Your task to perform on an android device: Search for pizza restaurants on Maps Image 0: 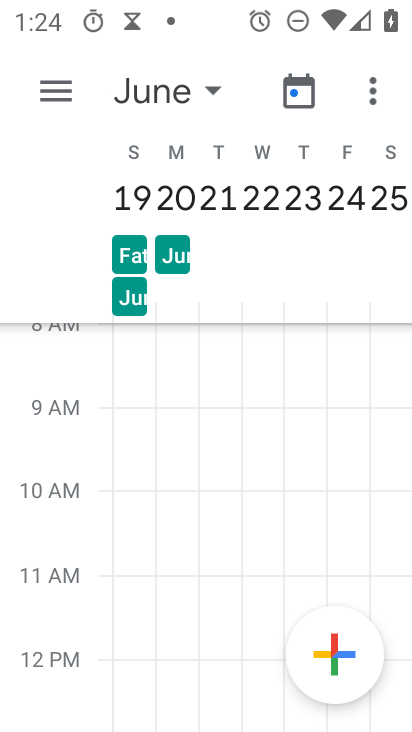
Step 0: press home button
Your task to perform on an android device: Search for pizza restaurants on Maps Image 1: 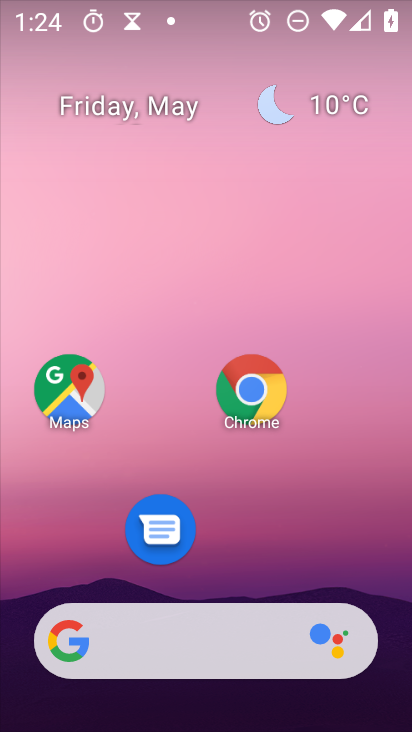
Step 1: click (61, 400)
Your task to perform on an android device: Search for pizza restaurants on Maps Image 2: 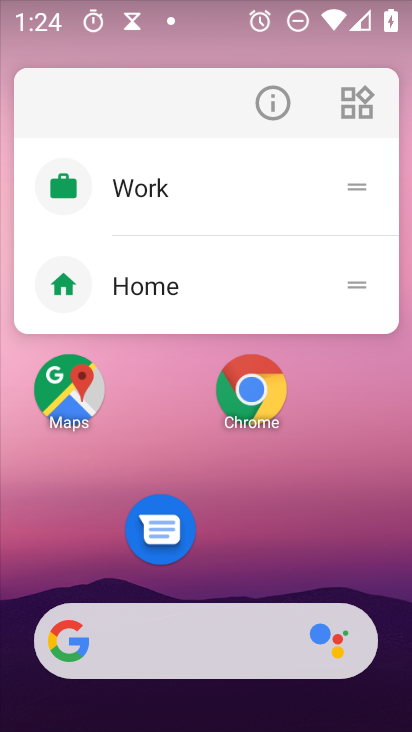
Step 2: click (68, 407)
Your task to perform on an android device: Search for pizza restaurants on Maps Image 3: 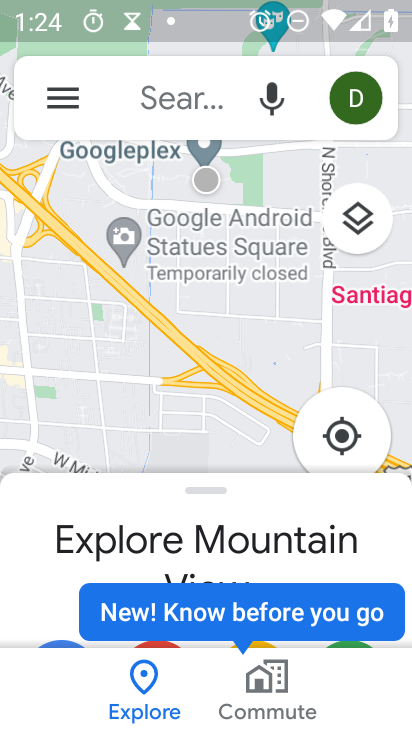
Step 3: click (184, 100)
Your task to perform on an android device: Search for pizza restaurants on Maps Image 4: 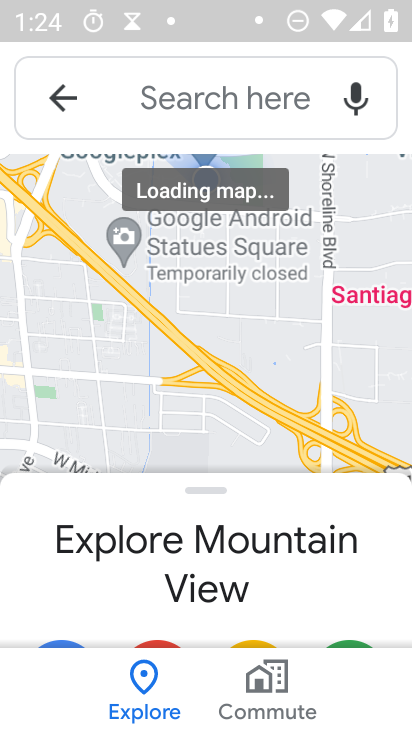
Step 4: click (188, 102)
Your task to perform on an android device: Search for pizza restaurants on Maps Image 5: 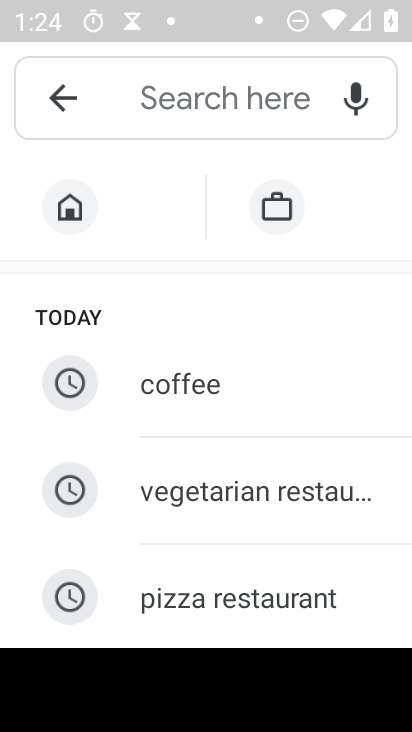
Step 5: click (207, 599)
Your task to perform on an android device: Search for pizza restaurants on Maps Image 6: 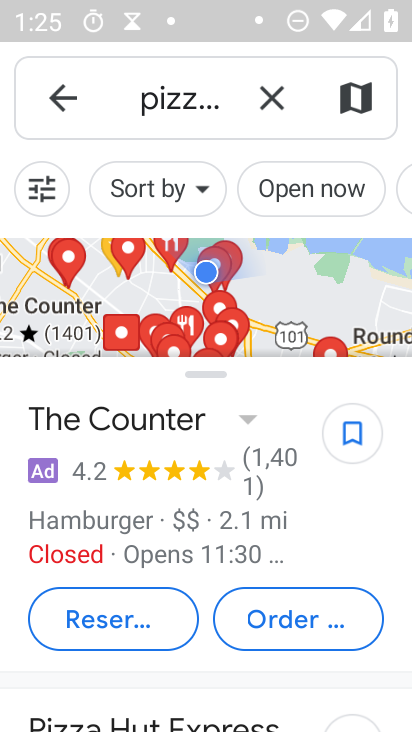
Step 6: task complete